Your task to perform on an android device: Open display settings Image 0: 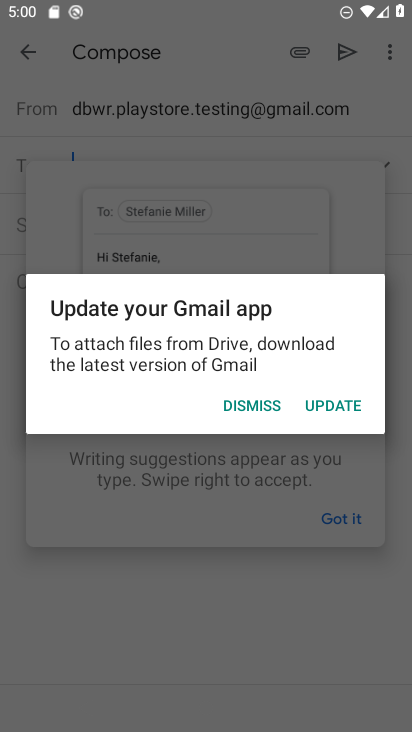
Step 0: click (229, 398)
Your task to perform on an android device: Open display settings Image 1: 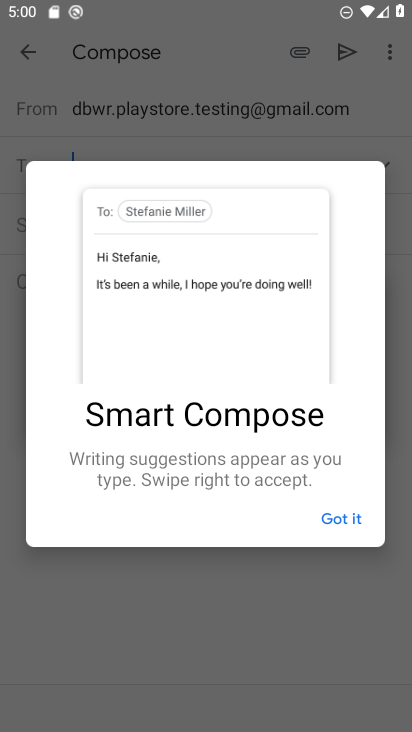
Step 1: click (341, 513)
Your task to perform on an android device: Open display settings Image 2: 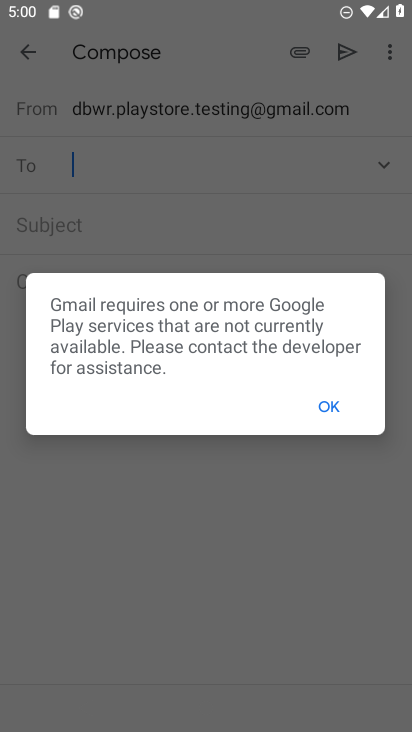
Step 2: click (327, 398)
Your task to perform on an android device: Open display settings Image 3: 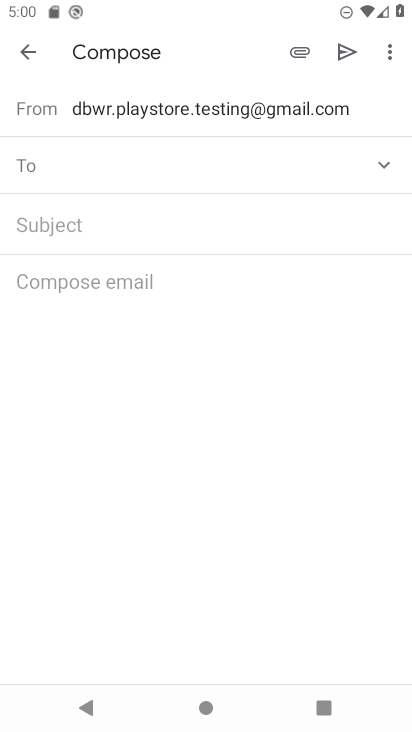
Step 3: click (31, 42)
Your task to perform on an android device: Open display settings Image 4: 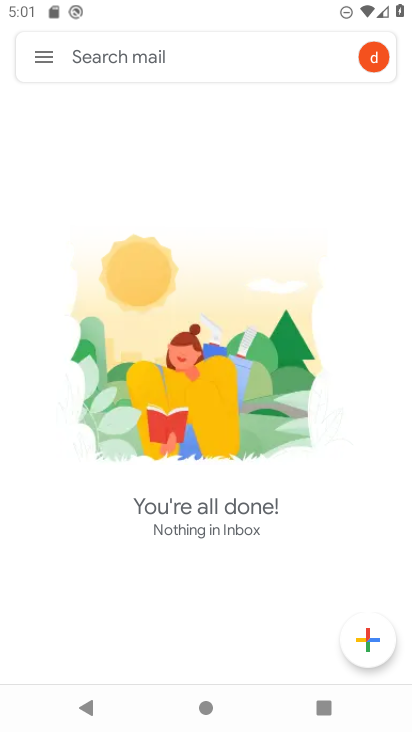
Step 4: press back button
Your task to perform on an android device: Open display settings Image 5: 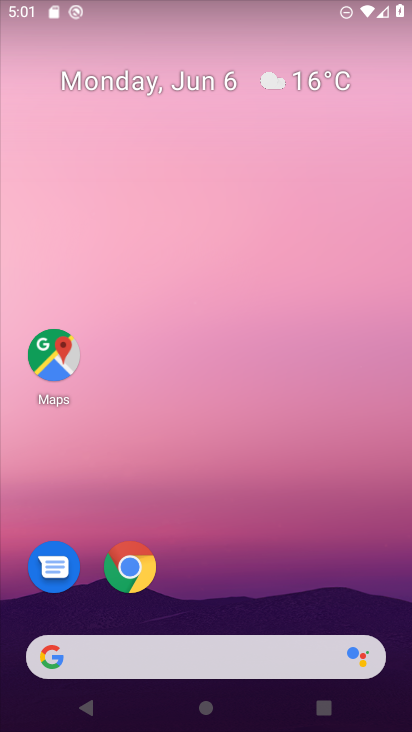
Step 5: click (134, 62)
Your task to perform on an android device: Open display settings Image 6: 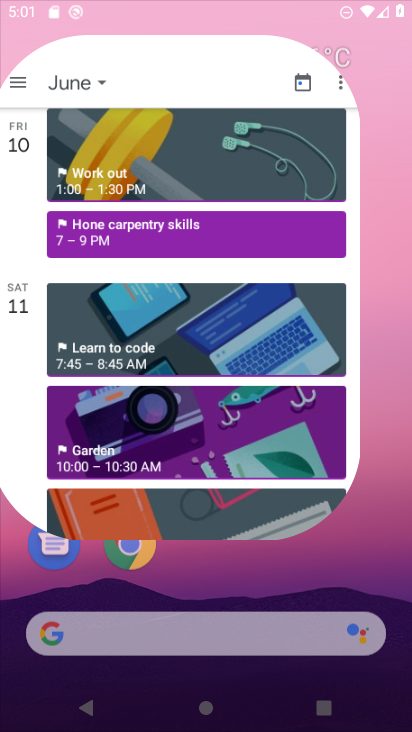
Step 6: drag from (158, 341) to (165, 19)
Your task to perform on an android device: Open display settings Image 7: 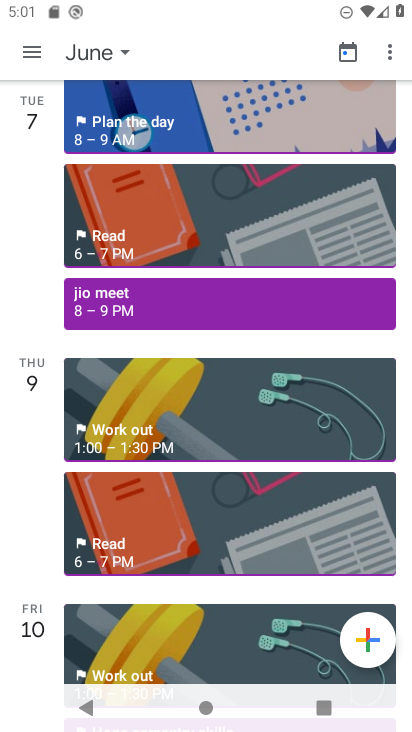
Step 7: press home button
Your task to perform on an android device: Open display settings Image 8: 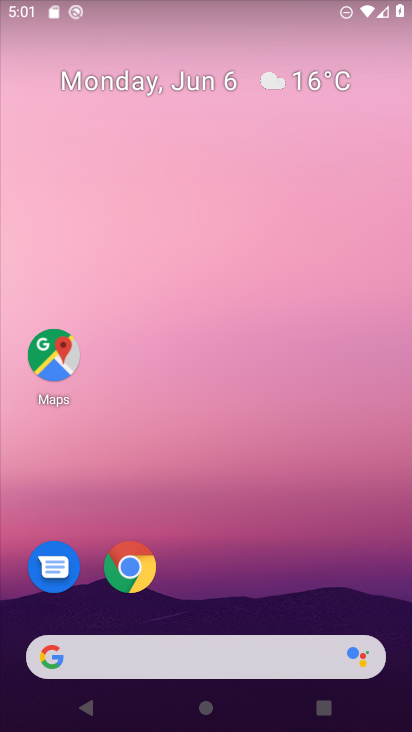
Step 8: drag from (184, 361) to (158, 136)
Your task to perform on an android device: Open display settings Image 9: 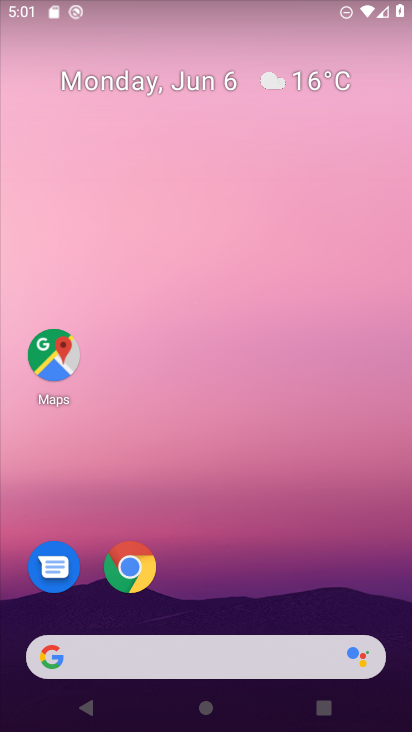
Step 9: drag from (247, 524) to (152, 189)
Your task to perform on an android device: Open display settings Image 10: 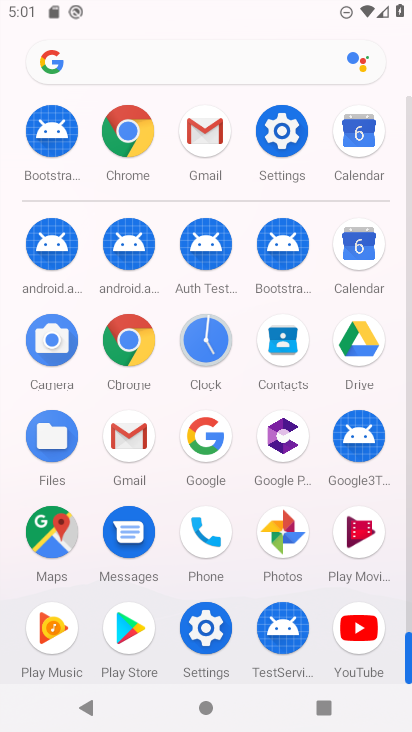
Step 10: click (192, 646)
Your task to perform on an android device: Open display settings Image 11: 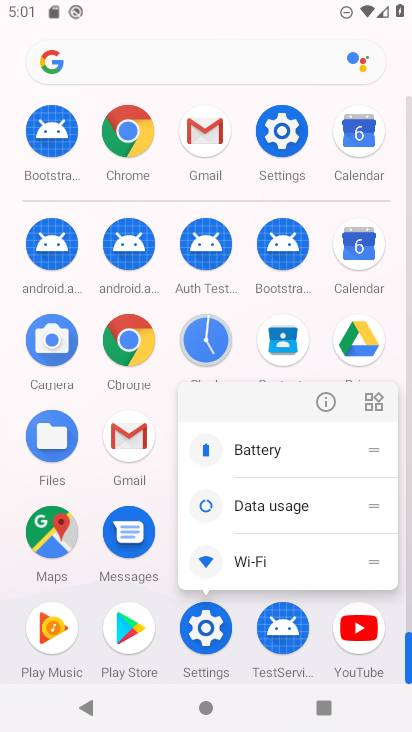
Step 11: click (241, 349)
Your task to perform on an android device: Open display settings Image 12: 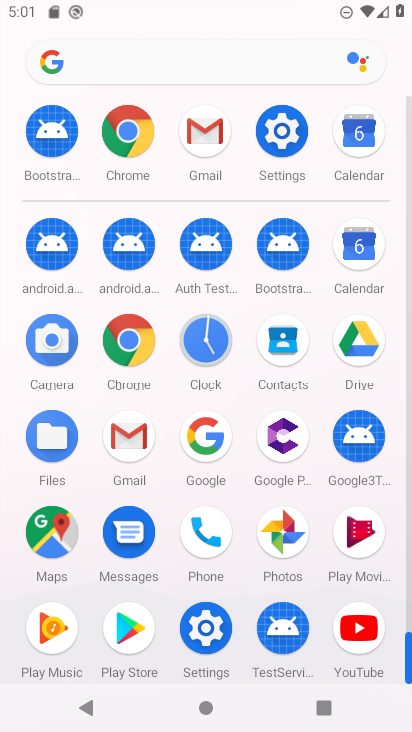
Step 12: click (209, 623)
Your task to perform on an android device: Open display settings Image 13: 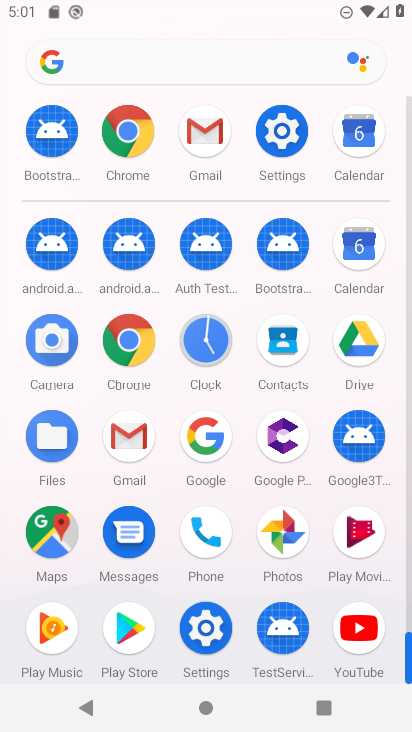
Step 13: click (207, 625)
Your task to perform on an android device: Open display settings Image 14: 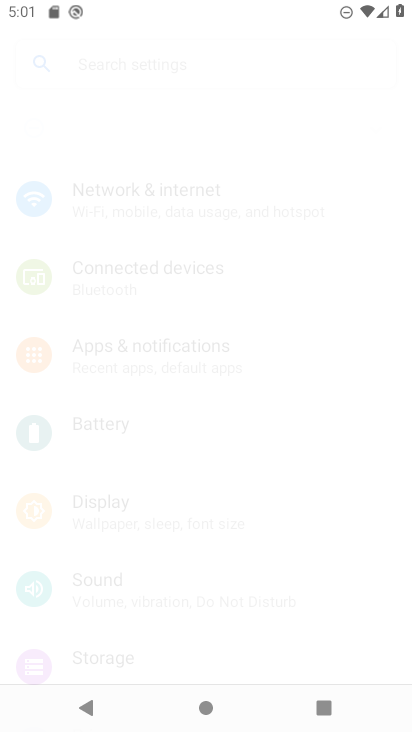
Step 14: click (220, 634)
Your task to perform on an android device: Open display settings Image 15: 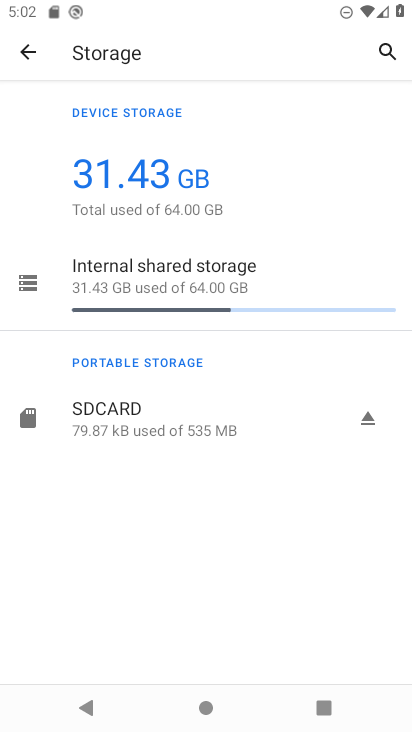
Step 15: click (29, 49)
Your task to perform on an android device: Open display settings Image 16: 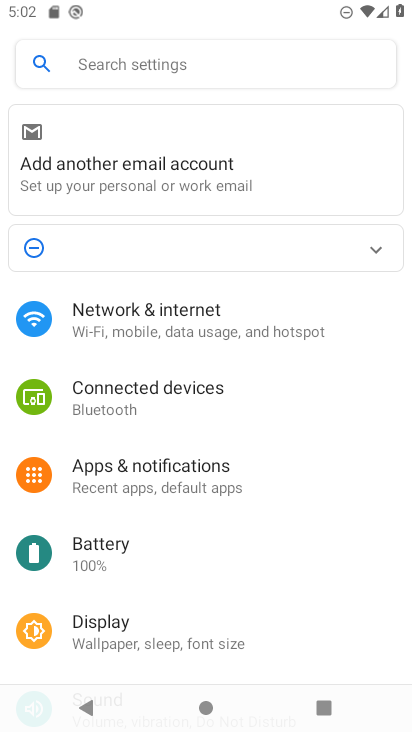
Step 16: click (103, 630)
Your task to perform on an android device: Open display settings Image 17: 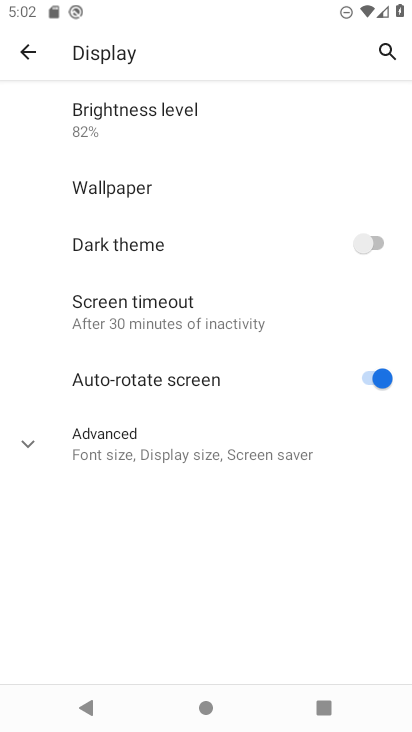
Step 17: task complete